Your task to perform on an android device: clear all cookies in the chrome app Image 0: 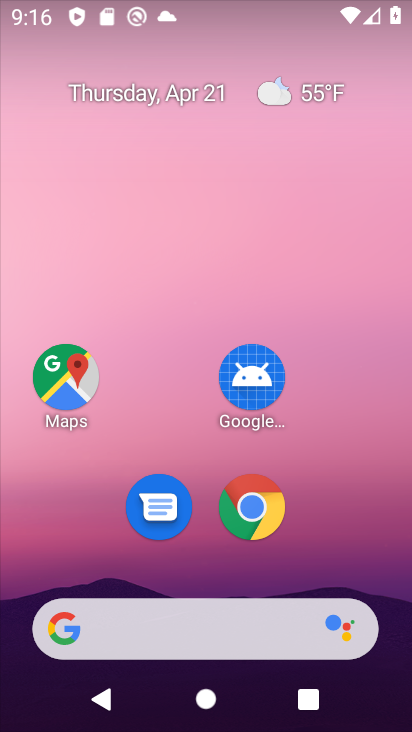
Step 0: drag from (353, 516) to (358, 218)
Your task to perform on an android device: clear all cookies in the chrome app Image 1: 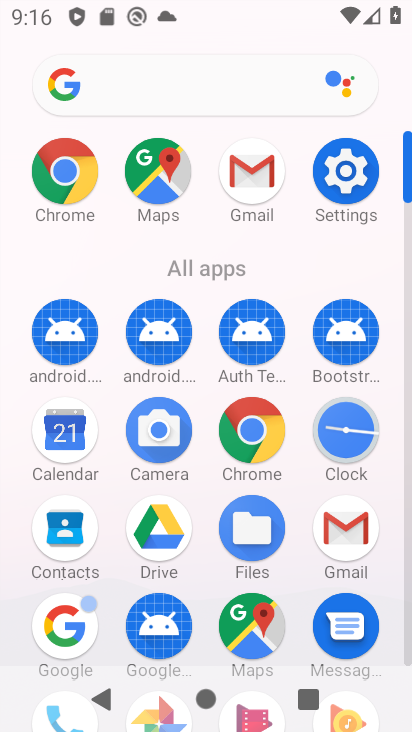
Step 1: click (256, 436)
Your task to perform on an android device: clear all cookies in the chrome app Image 2: 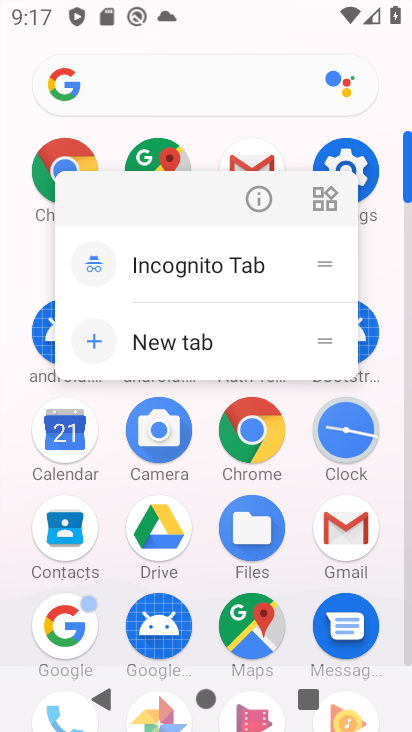
Step 2: click (263, 437)
Your task to perform on an android device: clear all cookies in the chrome app Image 3: 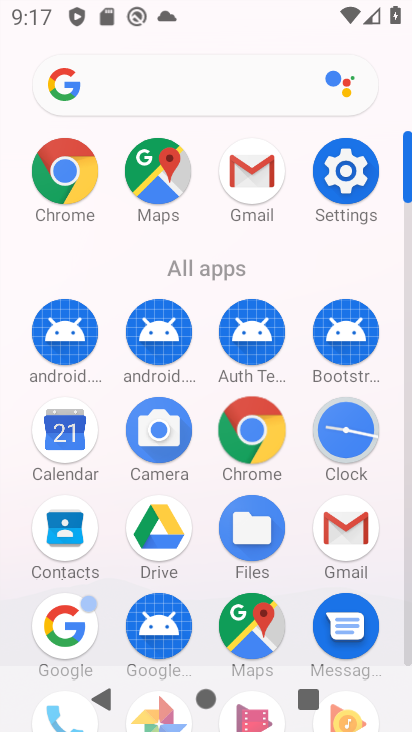
Step 3: click (263, 437)
Your task to perform on an android device: clear all cookies in the chrome app Image 4: 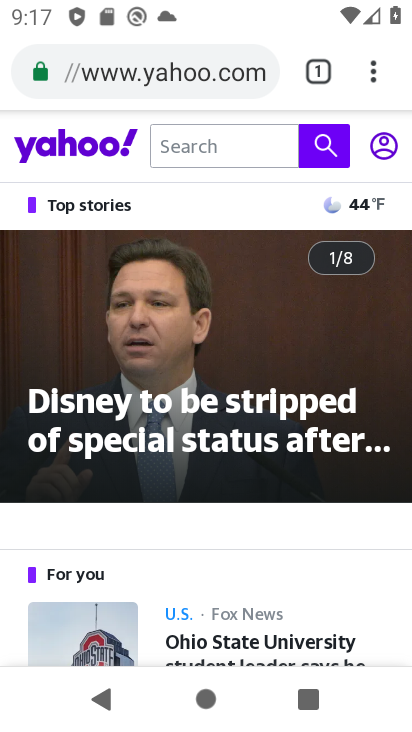
Step 4: click (368, 65)
Your task to perform on an android device: clear all cookies in the chrome app Image 5: 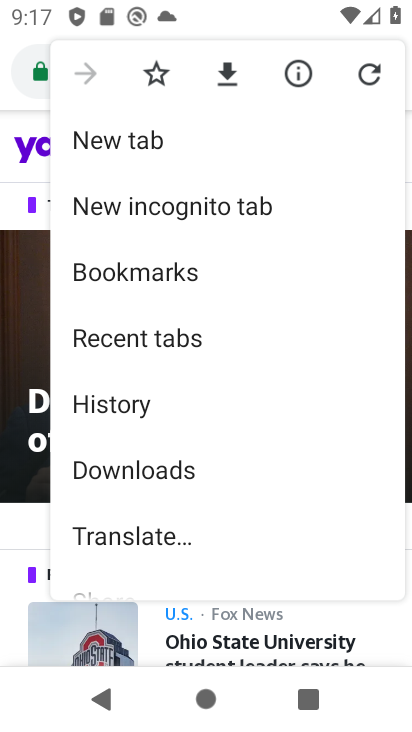
Step 5: drag from (254, 495) to (262, 246)
Your task to perform on an android device: clear all cookies in the chrome app Image 6: 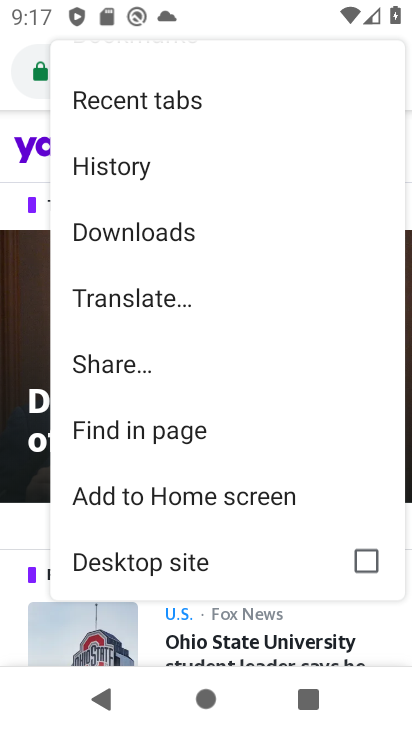
Step 6: drag from (214, 510) to (244, 225)
Your task to perform on an android device: clear all cookies in the chrome app Image 7: 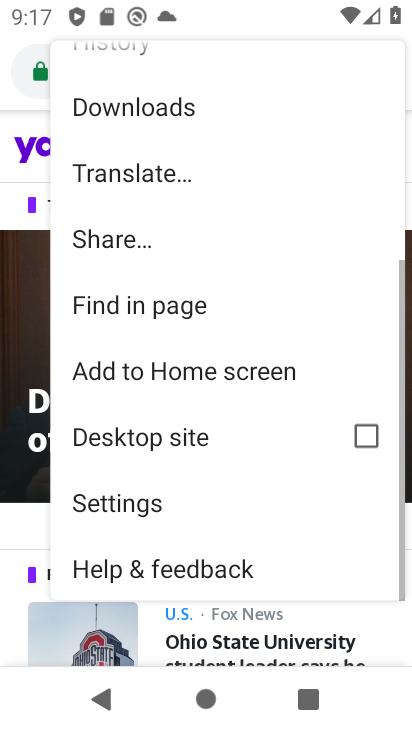
Step 7: click (141, 497)
Your task to perform on an android device: clear all cookies in the chrome app Image 8: 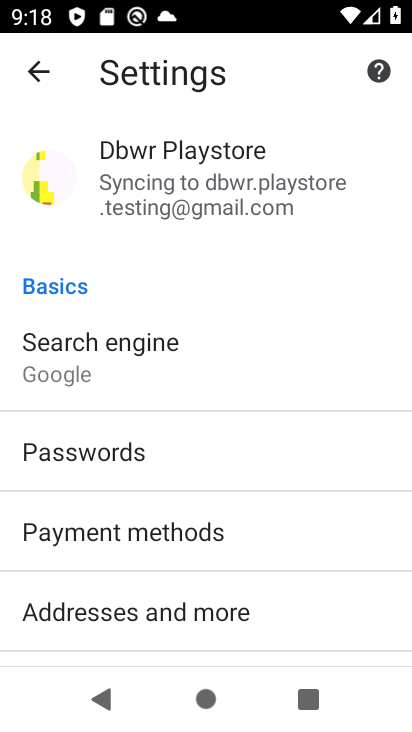
Step 8: drag from (227, 601) to (257, 126)
Your task to perform on an android device: clear all cookies in the chrome app Image 9: 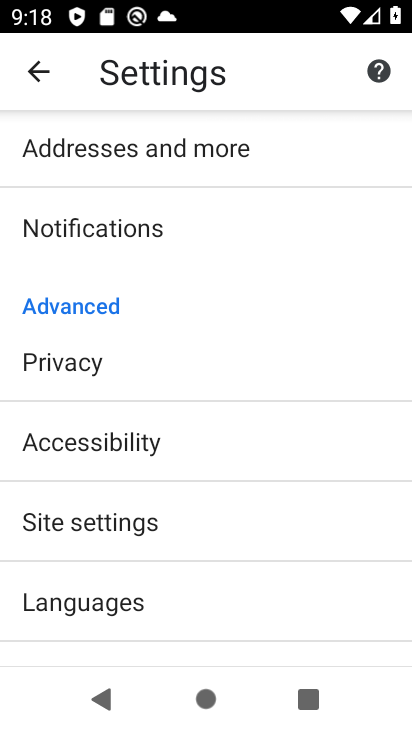
Step 9: click (110, 362)
Your task to perform on an android device: clear all cookies in the chrome app Image 10: 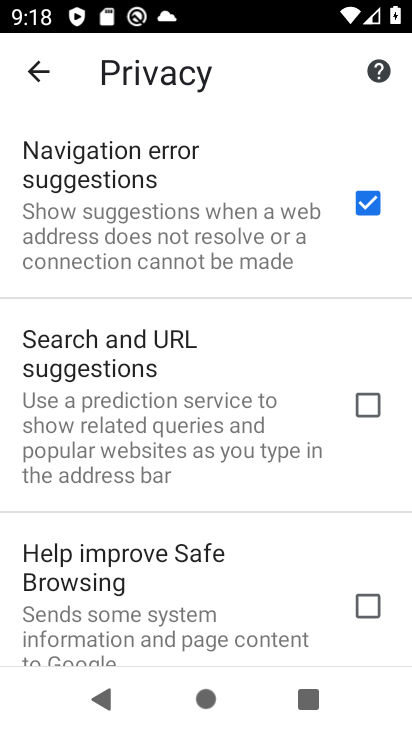
Step 10: click (46, 72)
Your task to perform on an android device: clear all cookies in the chrome app Image 11: 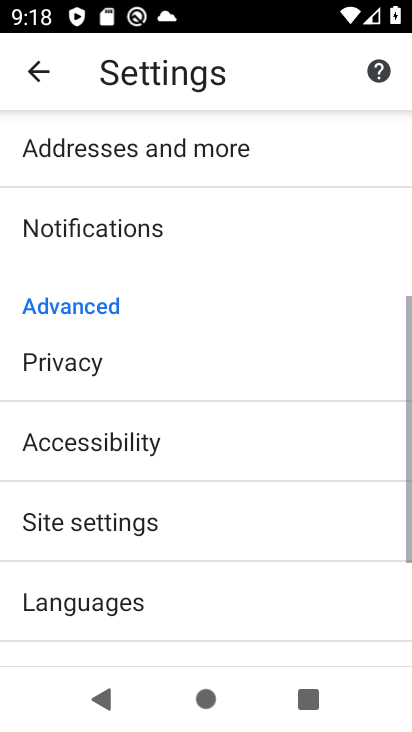
Step 11: click (150, 525)
Your task to perform on an android device: clear all cookies in the chrome app Image 12: 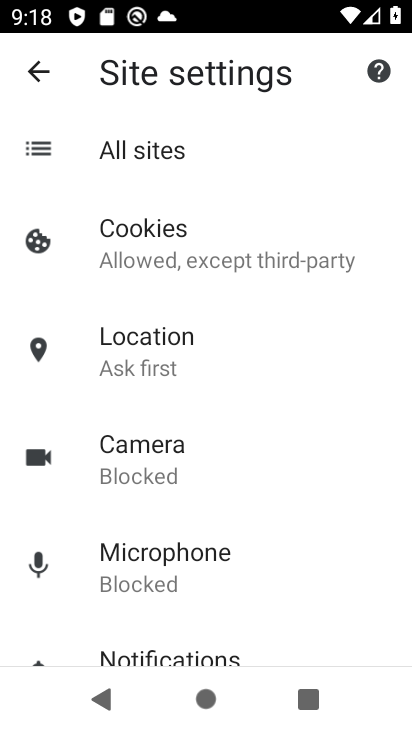
Step 12: click (193, 231)
Your task to perform on an android device: clear all cookies in the chrome app Image 13: 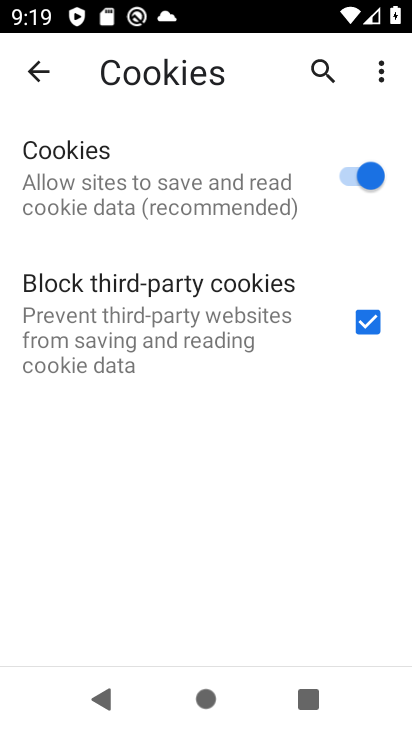
Step 13: task complete